Your task to perform on an android device: open a bookmark in the chrome app Image 0: 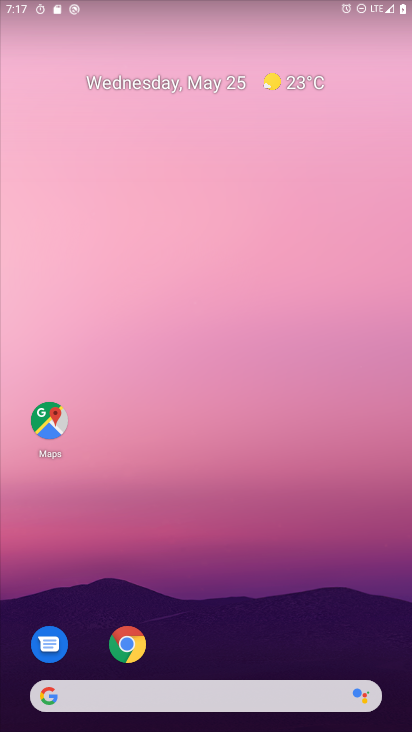
Step 0: press home button
Your task to perform on an android device: open a bookmark in the chrome app Image 1: 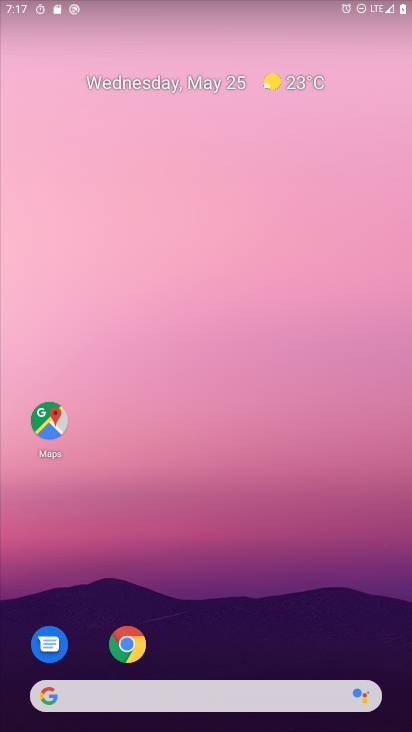
Step 1: drag from (342, 613) to (299, 84)
Your task to perform on an android device: open a bookmark in the chrome app Image 2: 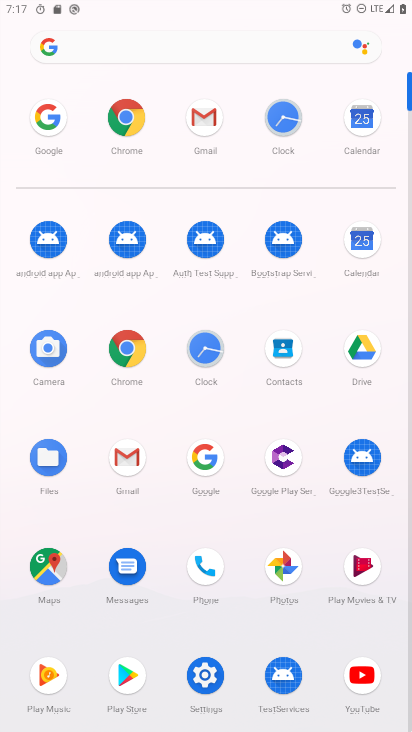
Step 2: click (121, 124)
Your task to perform on an android device: open a bookmark in the chrome app Image 3: 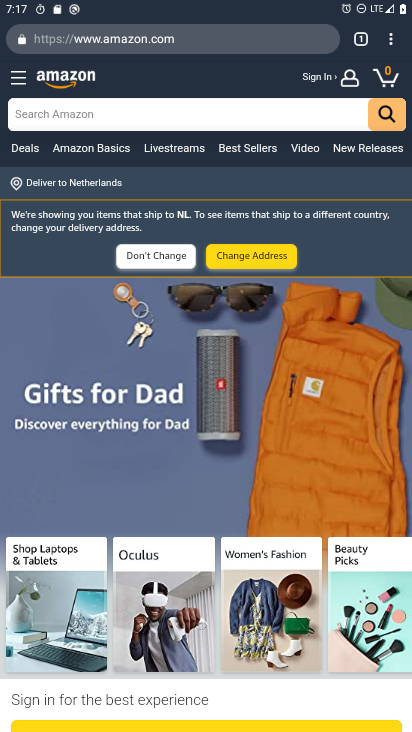
Step 3: press back button
Your task to perform on an android device: open a bookmark in the chrome app Image 4: 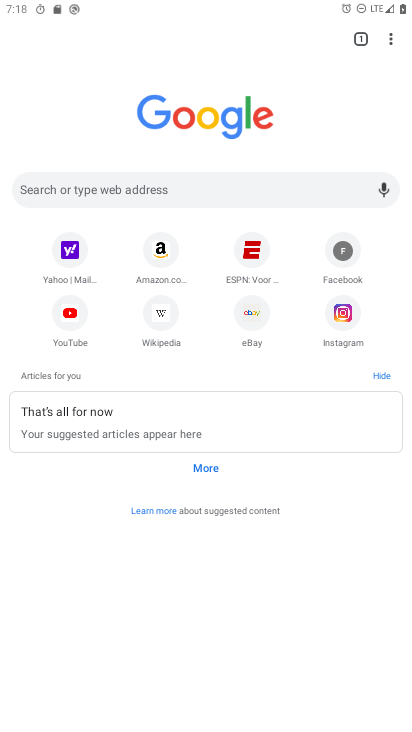
Step 4: click (387, 34)
Your task to perform on an android device: open a bookmark in the chrome app Image 5: 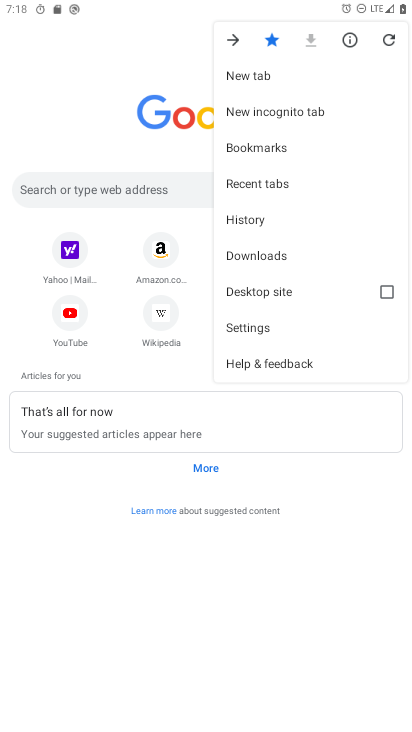
Step 5: click (278, 152)
Your task to perform on an android device: open a bookmark in the chrome app Image 6: 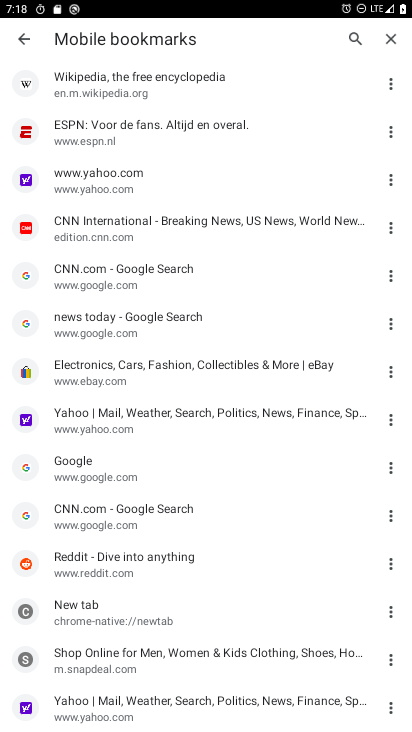
Step 6: task complete